Your task to perform on an android device: toggle data saver in the chrome app Image 0: 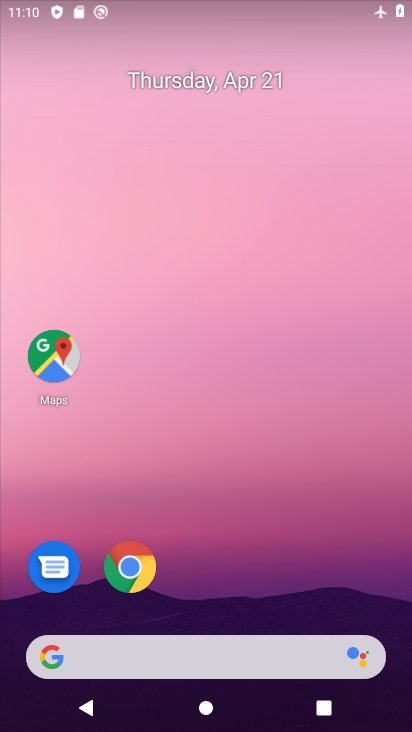
Step 0: click (134, 576)
Your task to perform on an android device: toggle data saver in the chrome app Image 1: 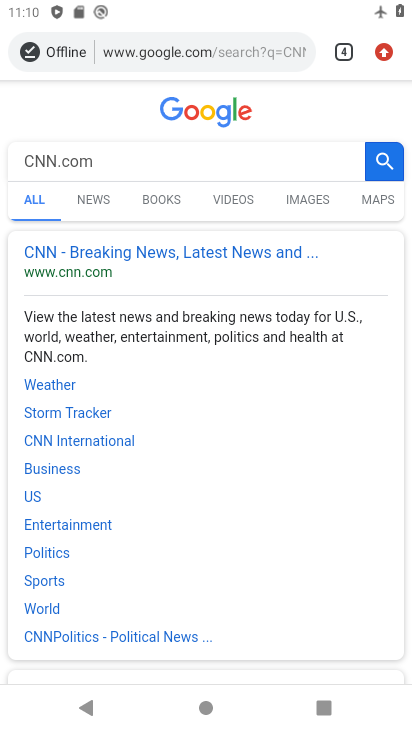
Step 1: click (389, 51)
Your task to perform on an android device: toggle data saver in the chrome app Image 2: 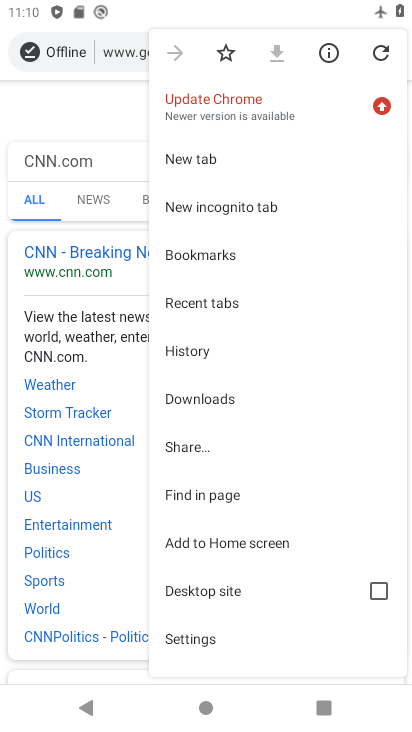
Step 2: click (194, 635)
Your task to perform on an android device: toggle data saver in the chrome app Image 3: 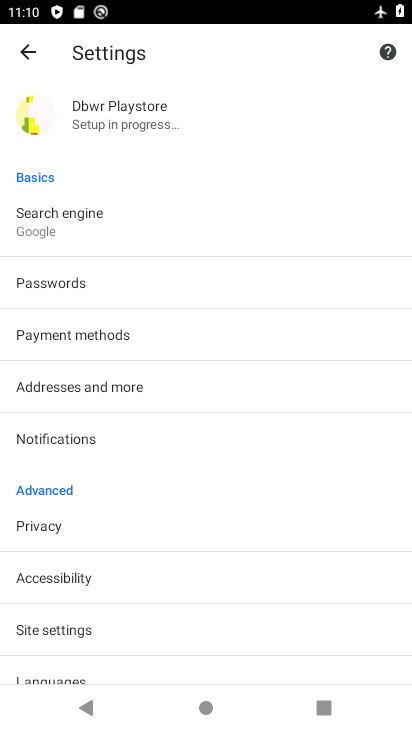
Step 3: drag from (94, 593) to (145, 298)
Your task to perform on an android device: toggle data saver in the chrome app Image 4: 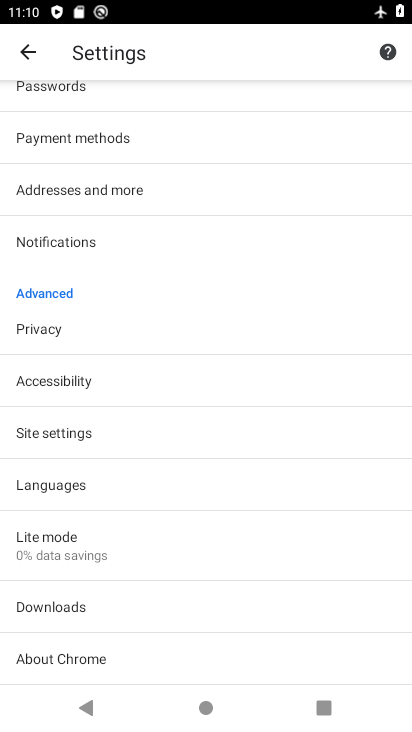
Step 4: click (66, 550)
Your task to perform on an android device: toggle data saver in the chrome app Image 5: 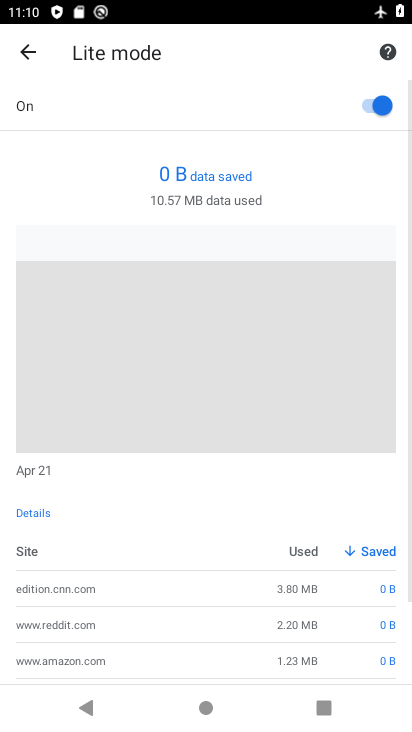
Step 5: click (350, 108)
Your task to perform on an android device: toggle data saver in the chrome app Image 6: 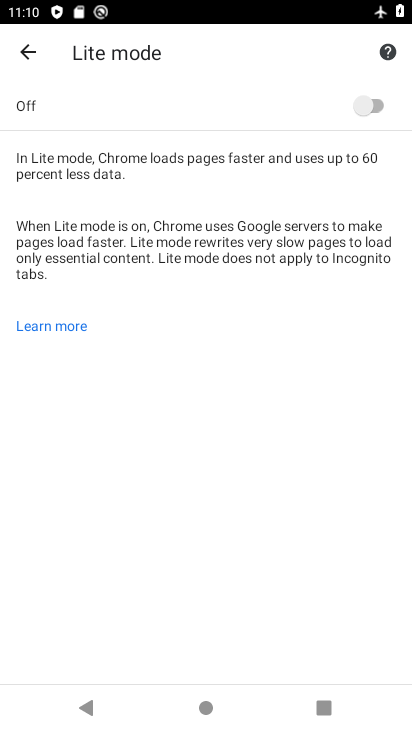
Step 6: task complete